Your task to perform on an android device: Do I have any events tomorrow? Image 0: 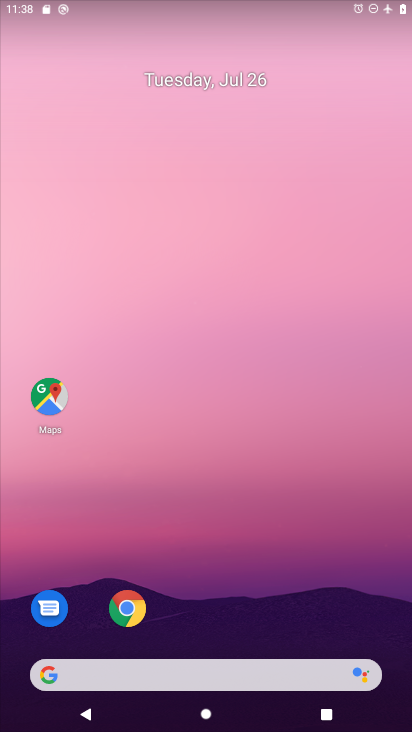
Step 0: drag from (336, 582) to (292, 9)
Your task to perform on an android device: Do I have any events tomorrow? Image 1: 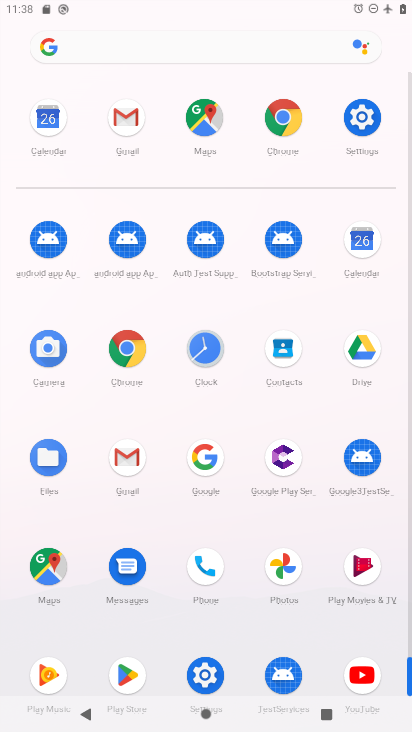
Step 1: click (360, 234)
Your task to perform on an android device: Do I have any events tomorrow? Image 2: 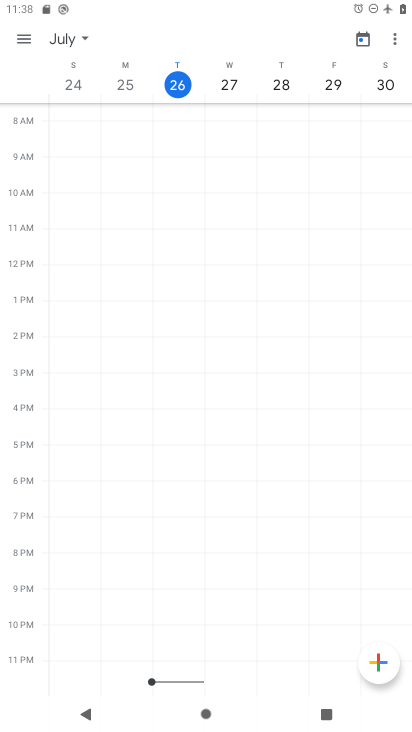
Step 2: click (231, 83)
Your task to perform on an android device: Do I have any events tomorrow? Image 3: 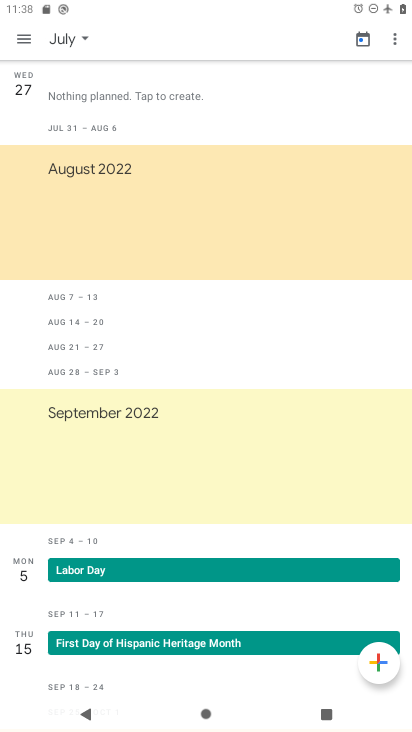
Step 3: task complete